Your task to perform on an android device: Go to settings Image 0: 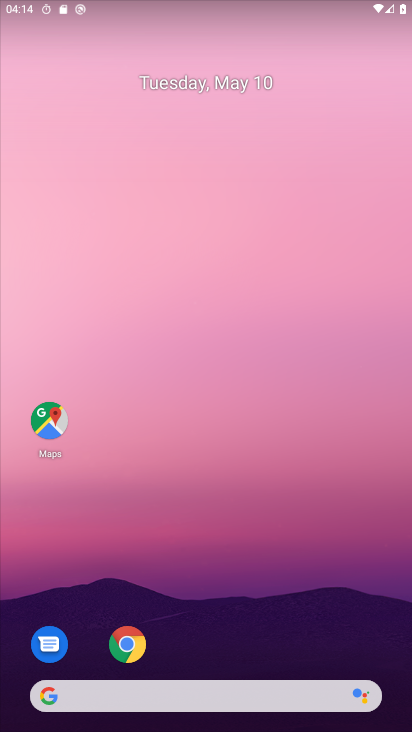
Step 0: press home button
Your task to perform on an android device: Go to settings Image 1: 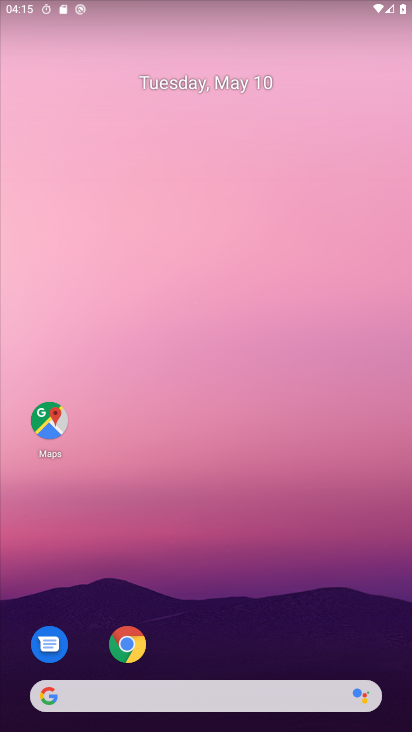
Step 1: drag from (210, 664) to (238, 154)
Your task to perform on an android device: Go to settings Image 2: 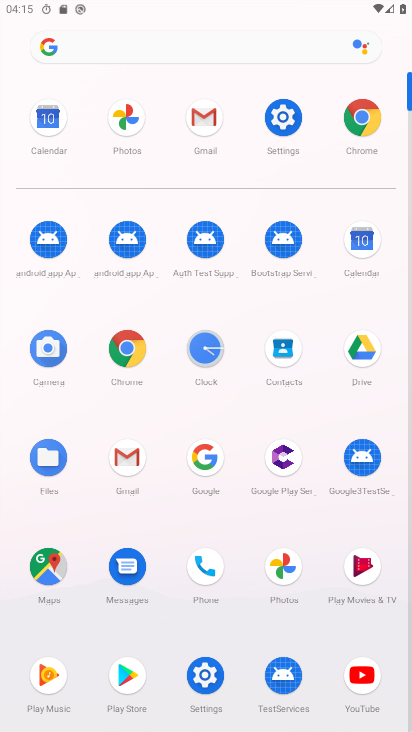
Step 2: click (289, 118)
Your task to perform on an android device: Go to settings Image 3: 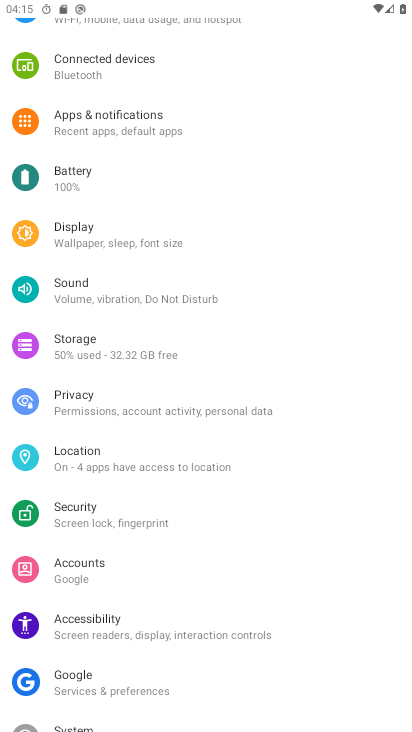
Step 3: task complete